Your task to perform on an android device: Open display settings Image 0: 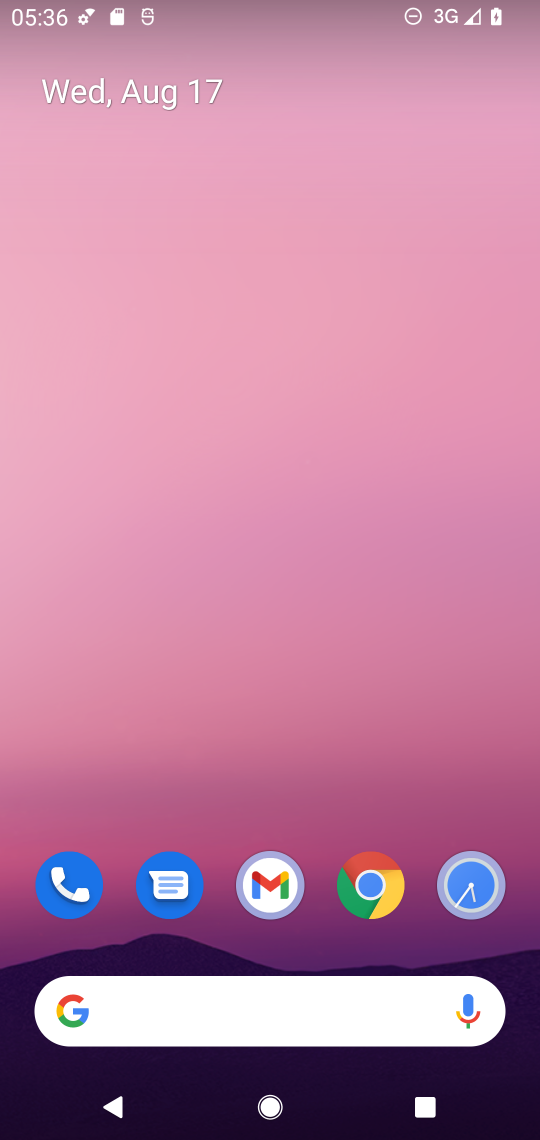
Step 0: drag from (231, 757) to (418, 59)
Your task to perform on an android device: Open display settings Image 1: 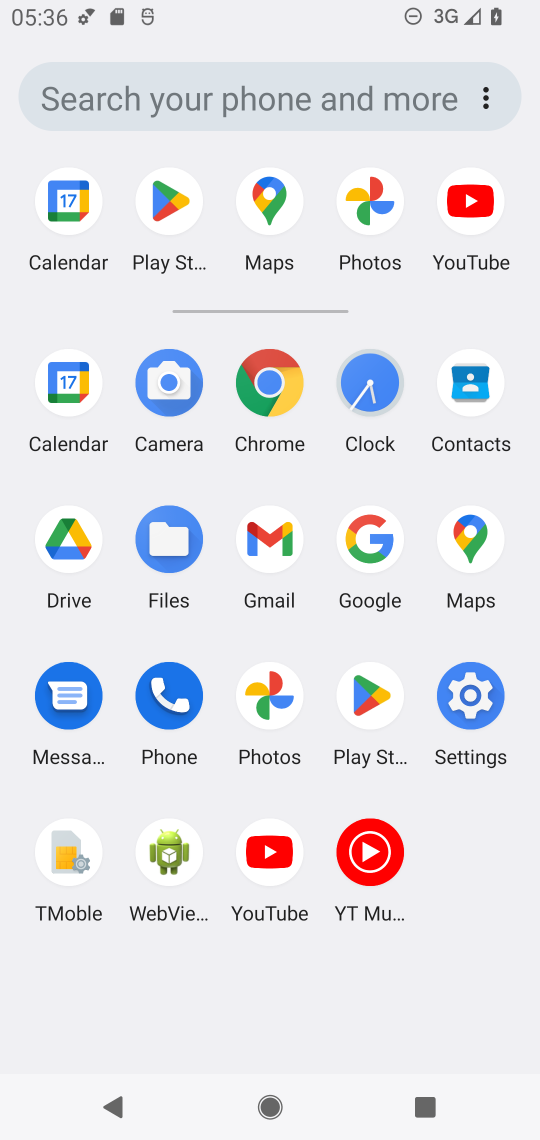
Step 1: click (497, 691)
Your task to perform on an android device: Open display settings Image 2: 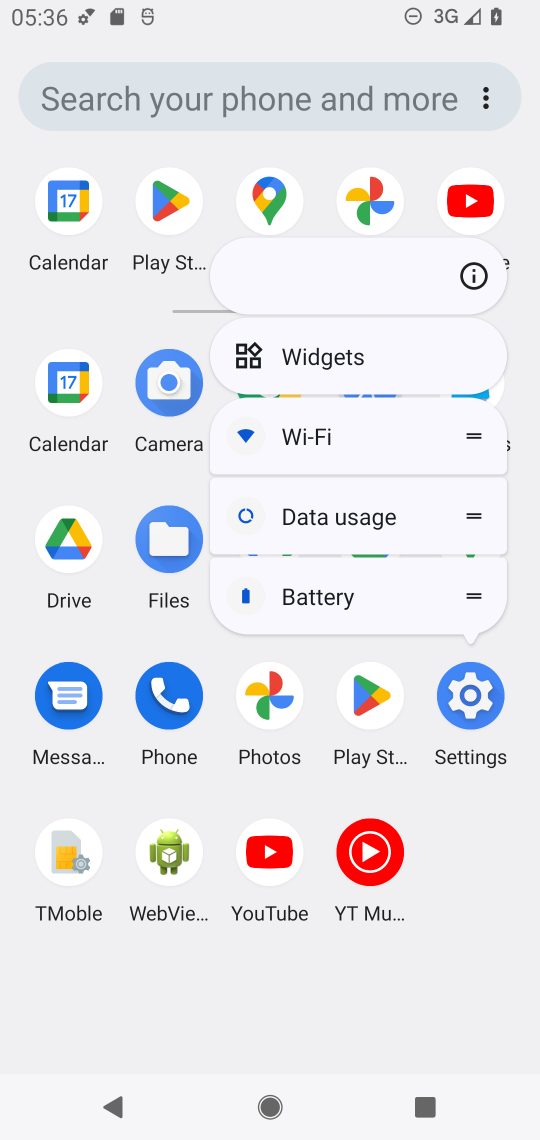
Step 2: click (486, 704)
Your task to perform on an android device: Open display settings Image 3: 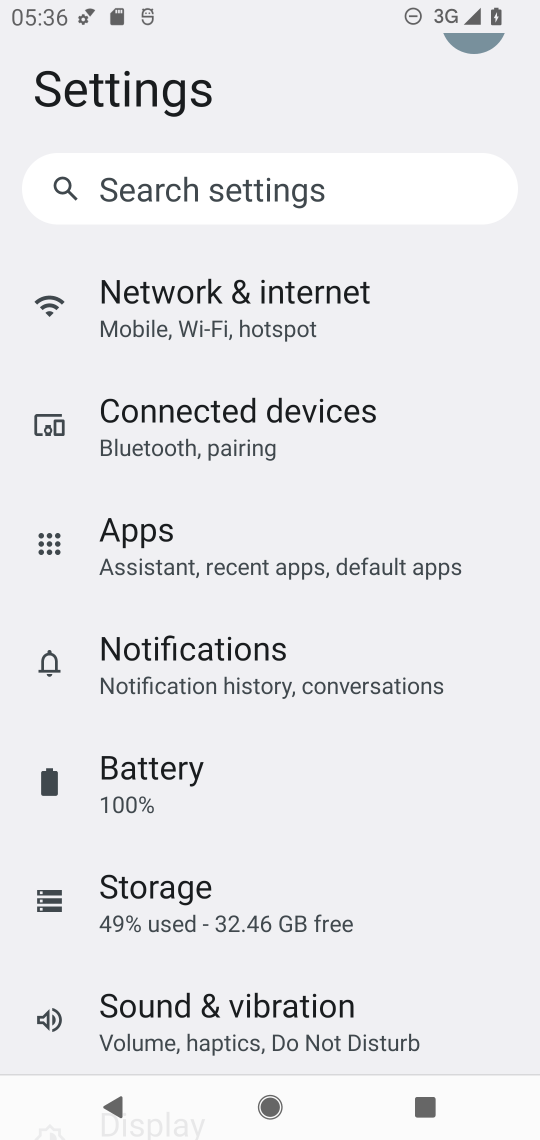
Step 3: drag from (300, 840) to (367, 285)
Your task to perform on an android device: Open display settings Image 4: 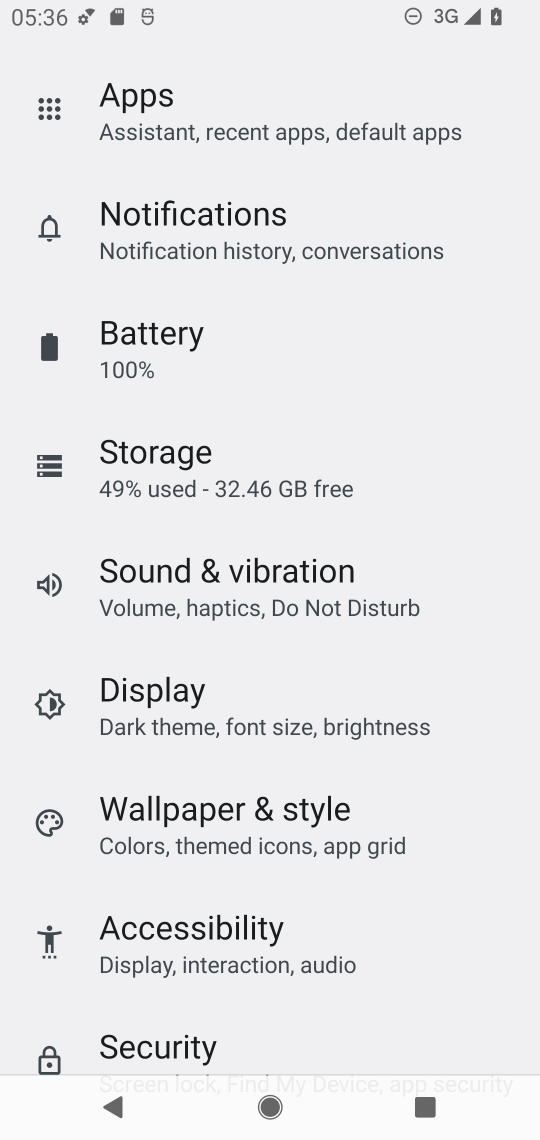
Step 4: click (134, 698)
Your task to perform on an android device: Open display settings Image 5: 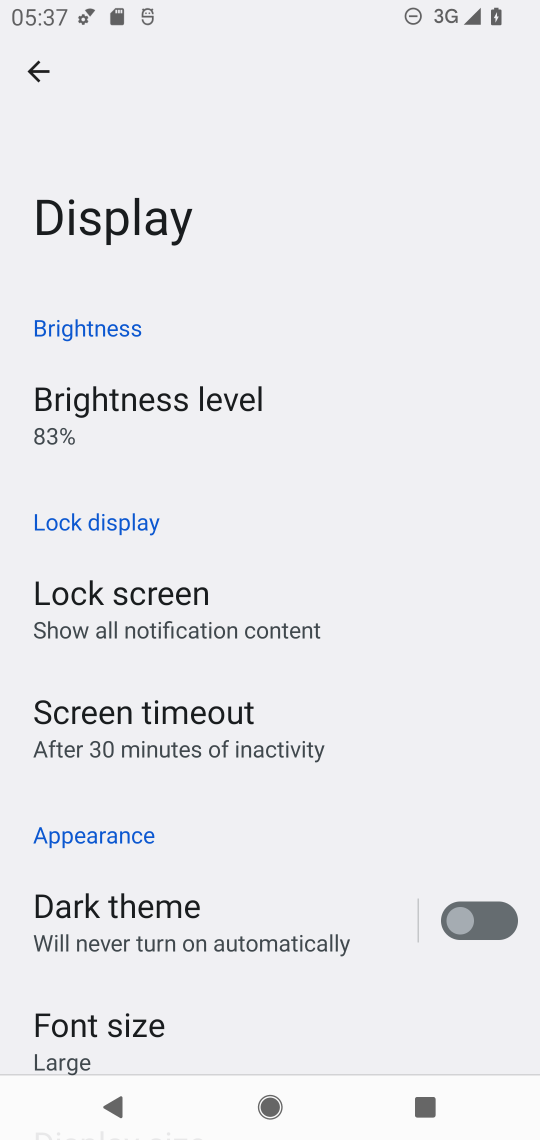
Step 5: task complete